Your task to perform on an android device: open sync settings in chrome Image 0: 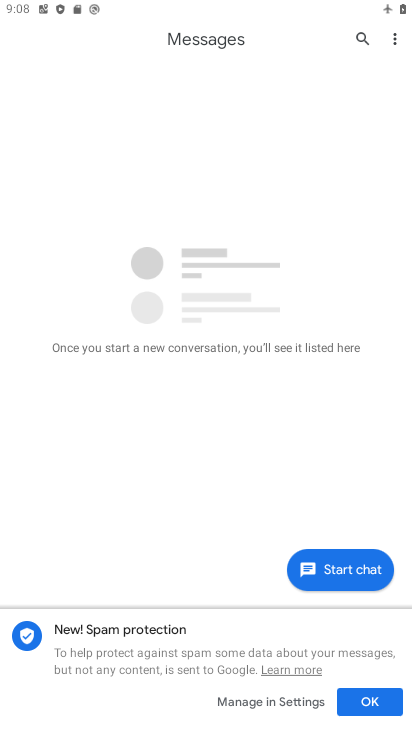
Step 0: press home button
Your task to perform on an android device: open sync settings in chrome Image 1: 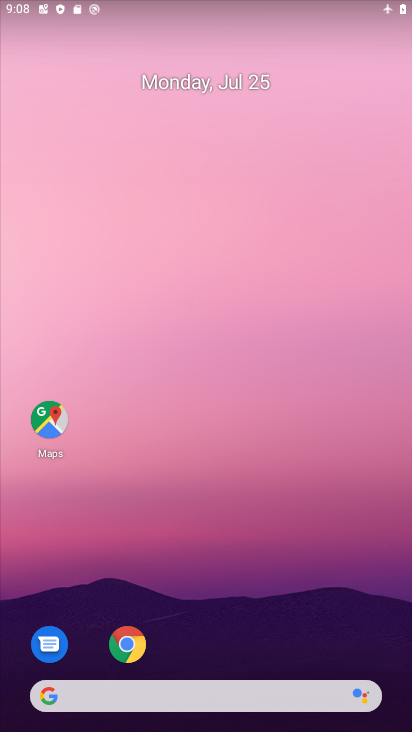
Step 1: drag from (223, 617) to (211, 175)
Your task to perform on an android device: open sync settings in chrome Image 2: 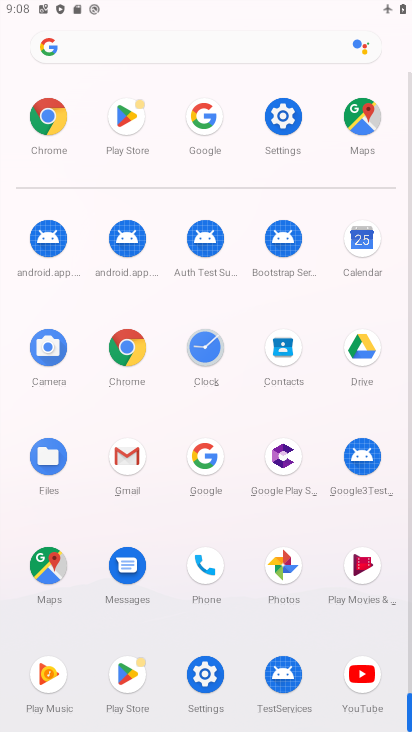
Step 2: click (105, 362)
Your task to perform on an android device: open sync settings in chrome Image 3: 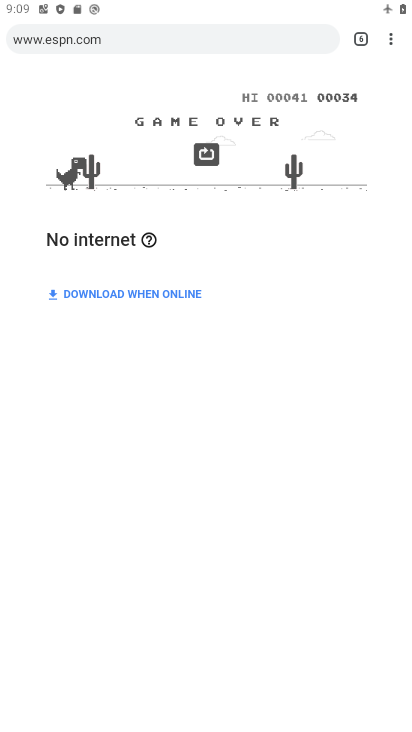
Step 3: click (396, 46)
Your task to perform on an android device: open sync settings in chrome Image 4: 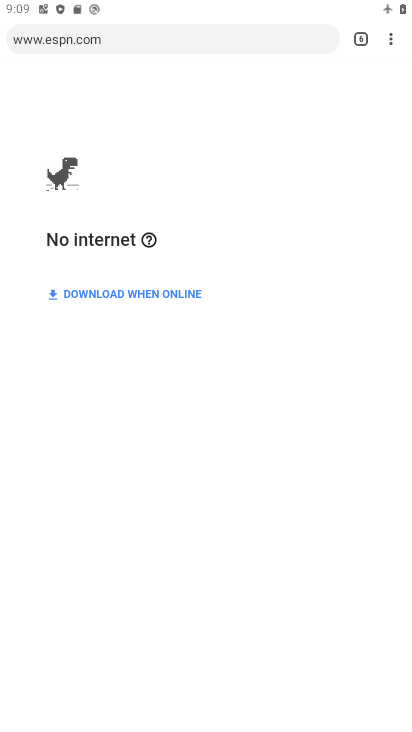
Step 4: click (391, 31)
Your task to perform on an android device: open sync settings in chrome Image 5: 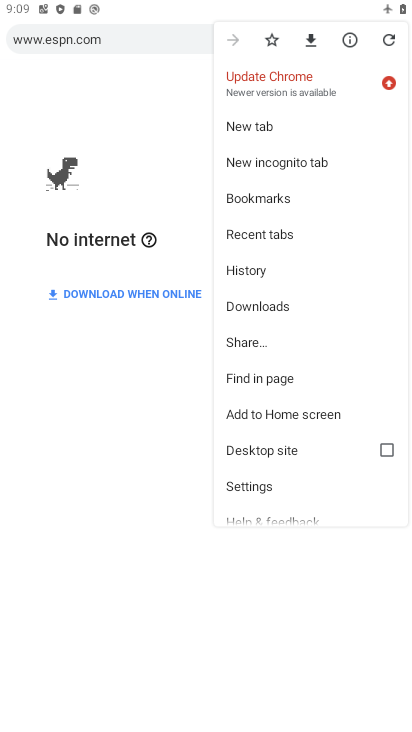
Step 5: click (256, 487)
Your task to perform on an android device: open sync settings in chrome Image 6: 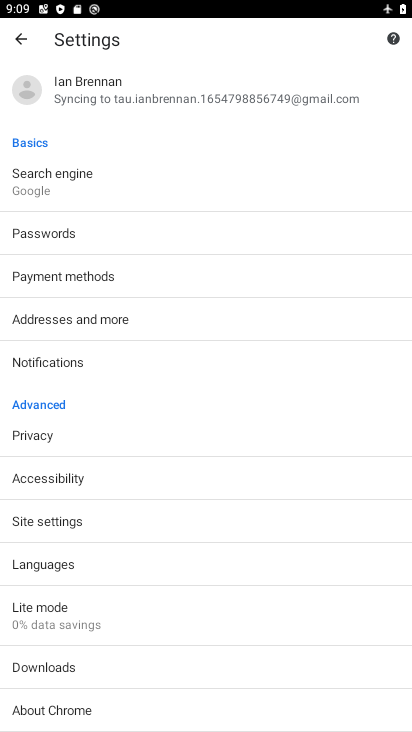
Step 6: click (173, 108)
Your task to perform on an android device: open sync settings in chrome Image 7: 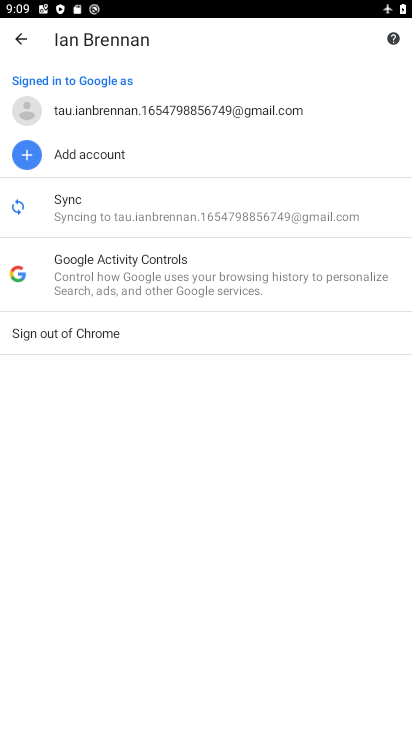
Step 7: click (179, 219)
Your task to perform on an android device: open sync settings in chrome Image 8: 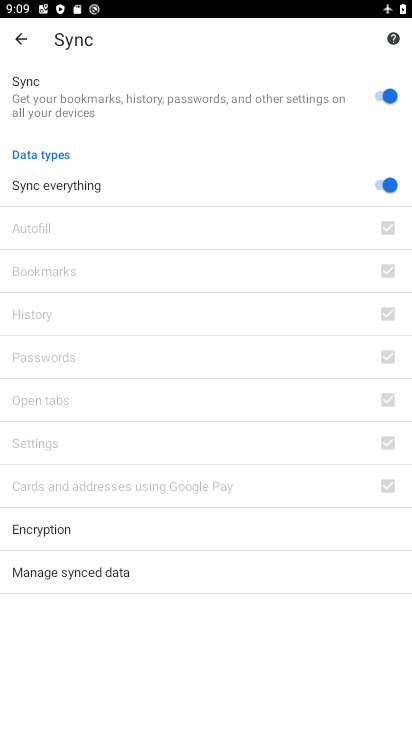
Step 8: task complete